Your task to perform on an android device: open app "Move to iOS" (install if not already installed) Image 0: 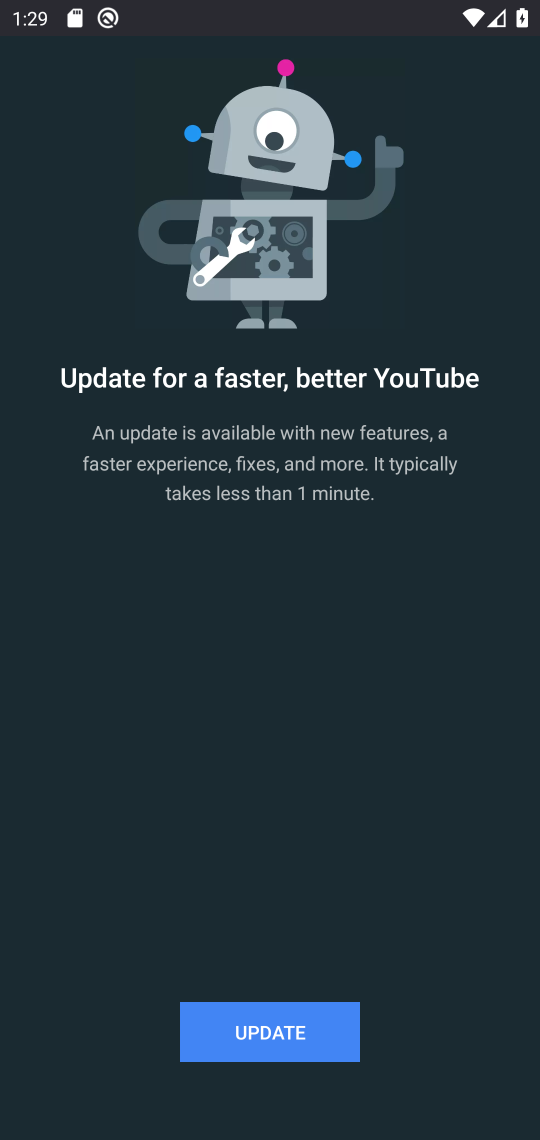
Step 0: press home button
Your task to perform on an android device: open app "Move to iOS" (install if not already installed) Image 1: 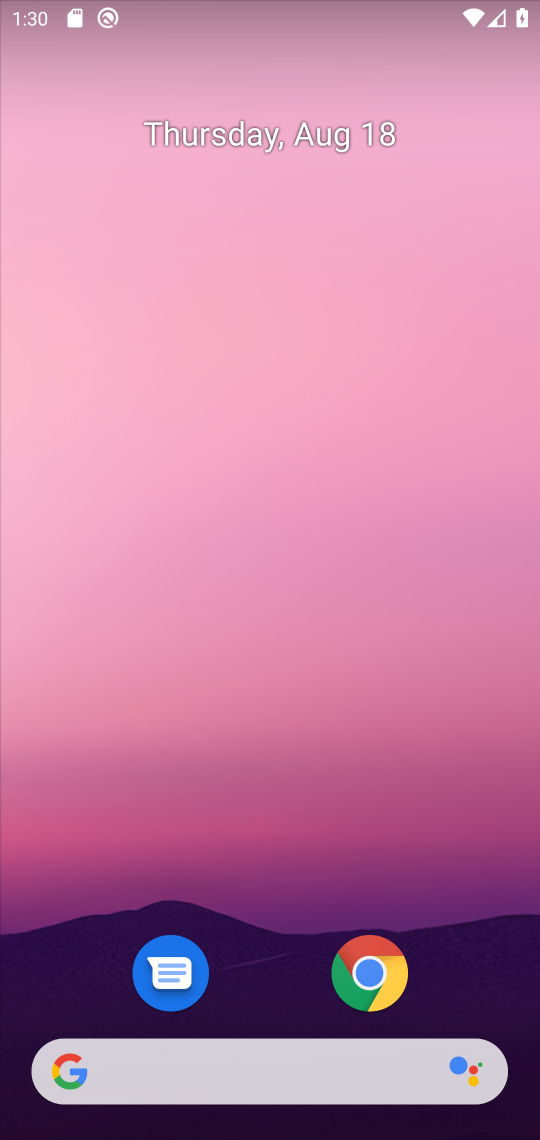
Step 1: drag from (294, 1011) to (280, 48)
Your task to perform on an android device: open app "Move to iOS" (install if not already installed) Image 2: 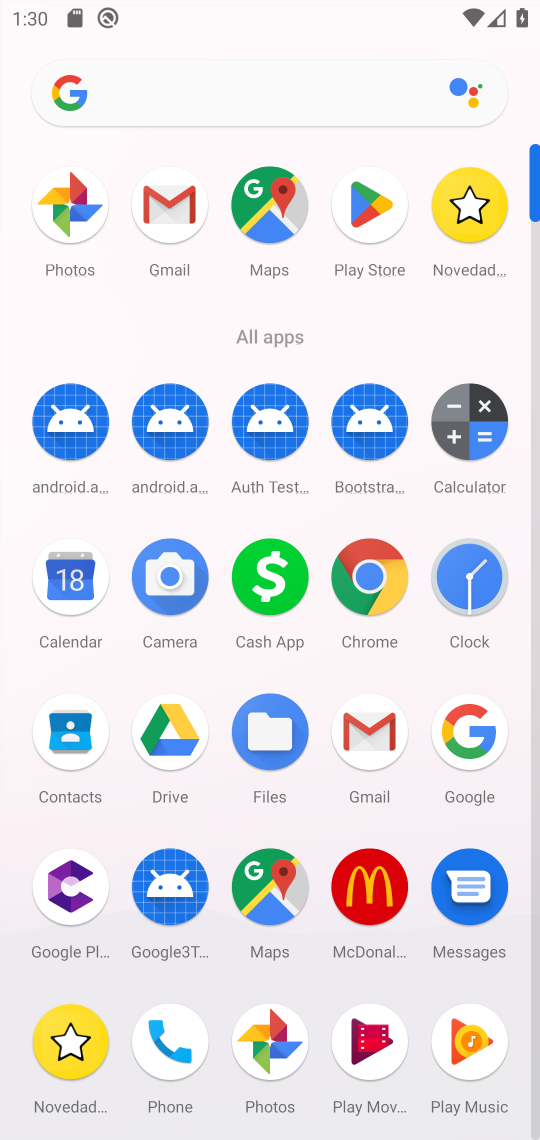
Step 2: click (378, 232)
Your task to perform on an android device: open app "Move to iOS" (install if not already installed) Image 3: 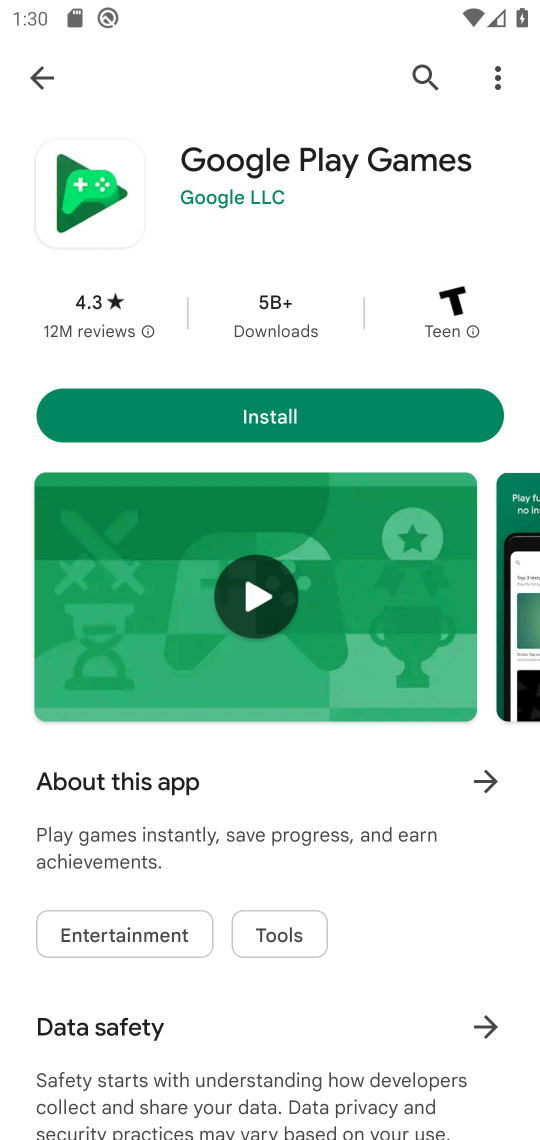
Step 3: click (429, 87)
Your task to perform on an android device: open app "Move to iOS" (install if not already installed) Image 4: 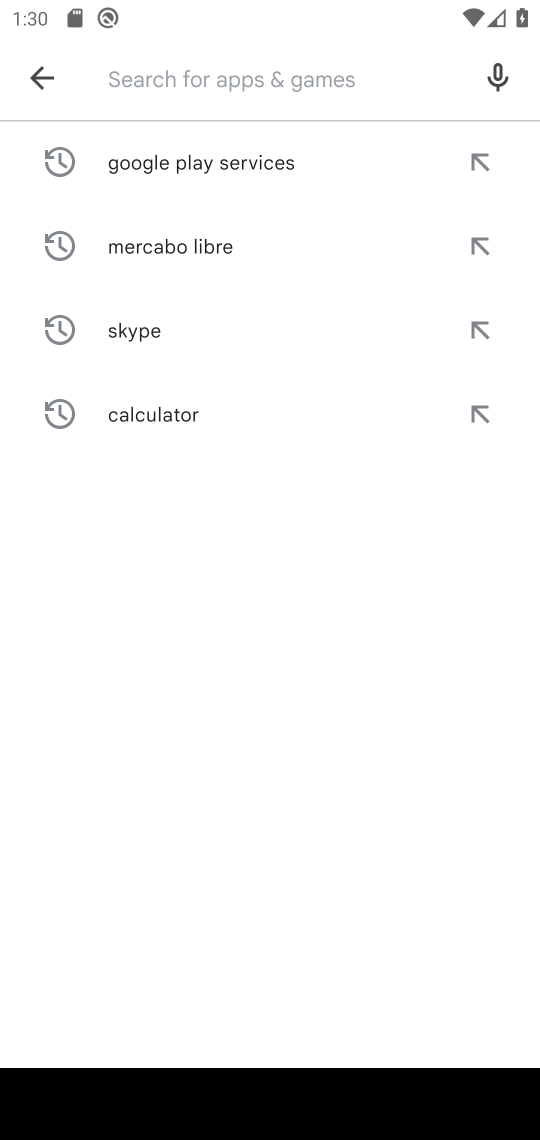
Step 4: type "move iso"
Your task to perform on an android device: open app "Move to iOS" (install if not already installed) Image 5: 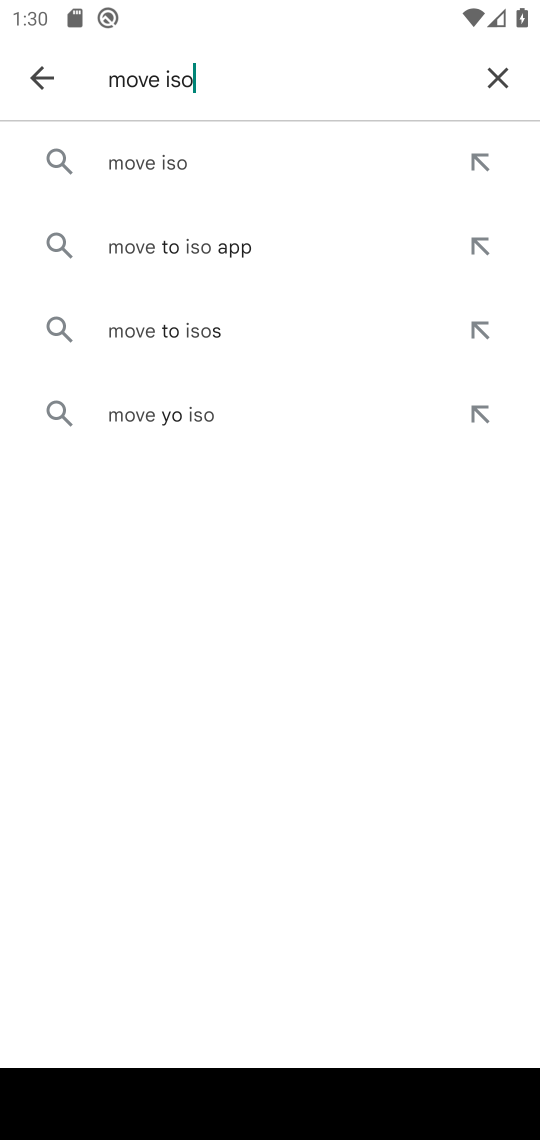
Step 5: click (242, 162)
Your task to perform on an android device: open app "Move to iOS" (install if not already installed) Image 6: 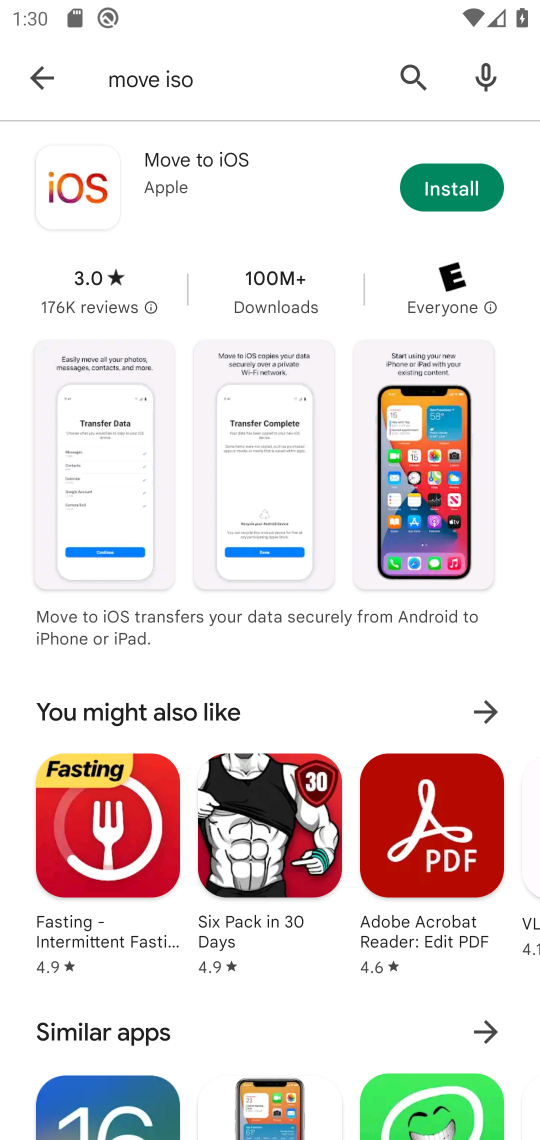
Step 6: click (452, 184)
Your task to perform on an android device: open app "Move to iOS" (install if not already installed) Image 7: 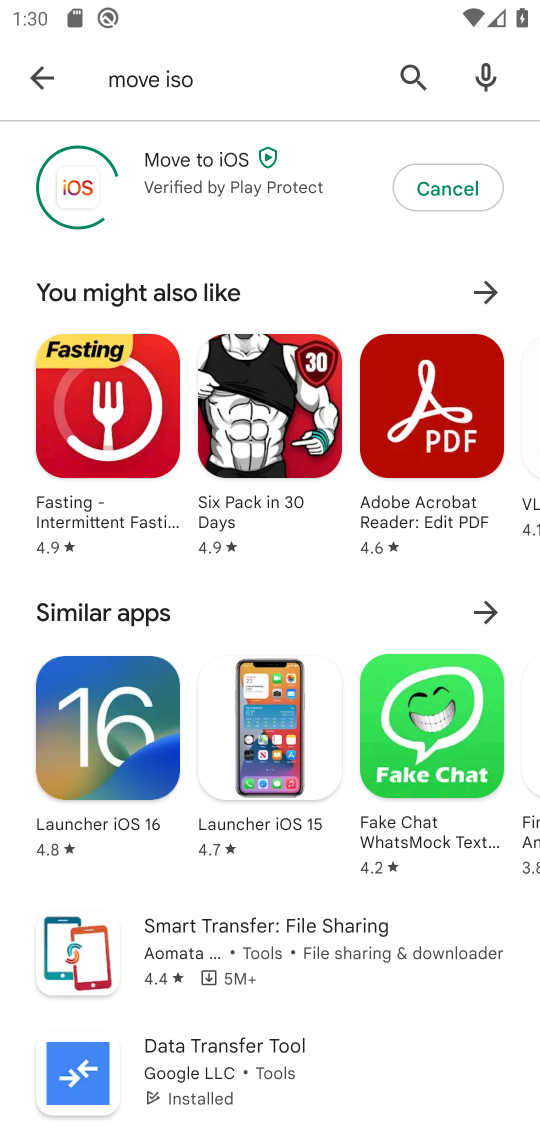
Step 7: task complete